Your task to perform on an android device: Add "razer thresher" to the cart on bestbuy.com, then select checkout. Image 0: 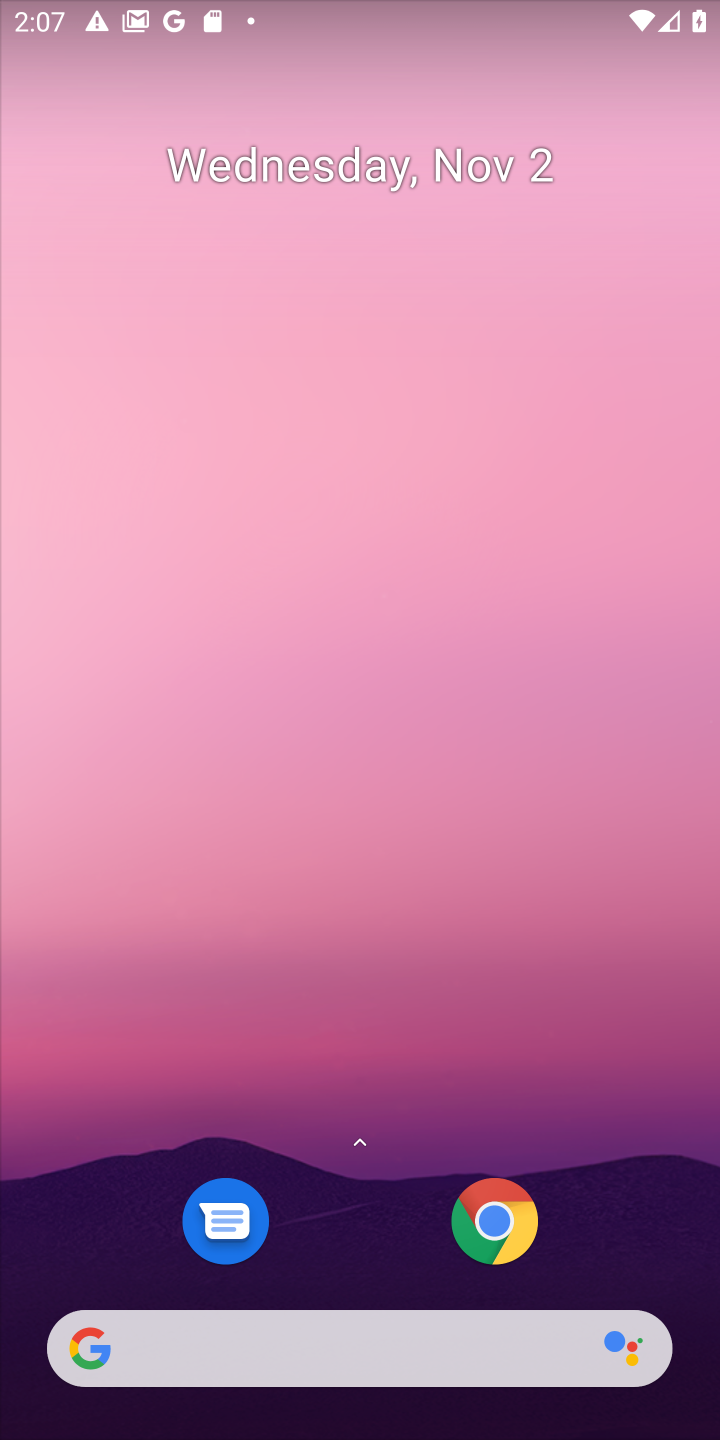
Step 0: click (452, 1335)
Your task to perform on an android device: Add "razer thresher" to the cart on bestbuy.com, then select checkout. Image 1: 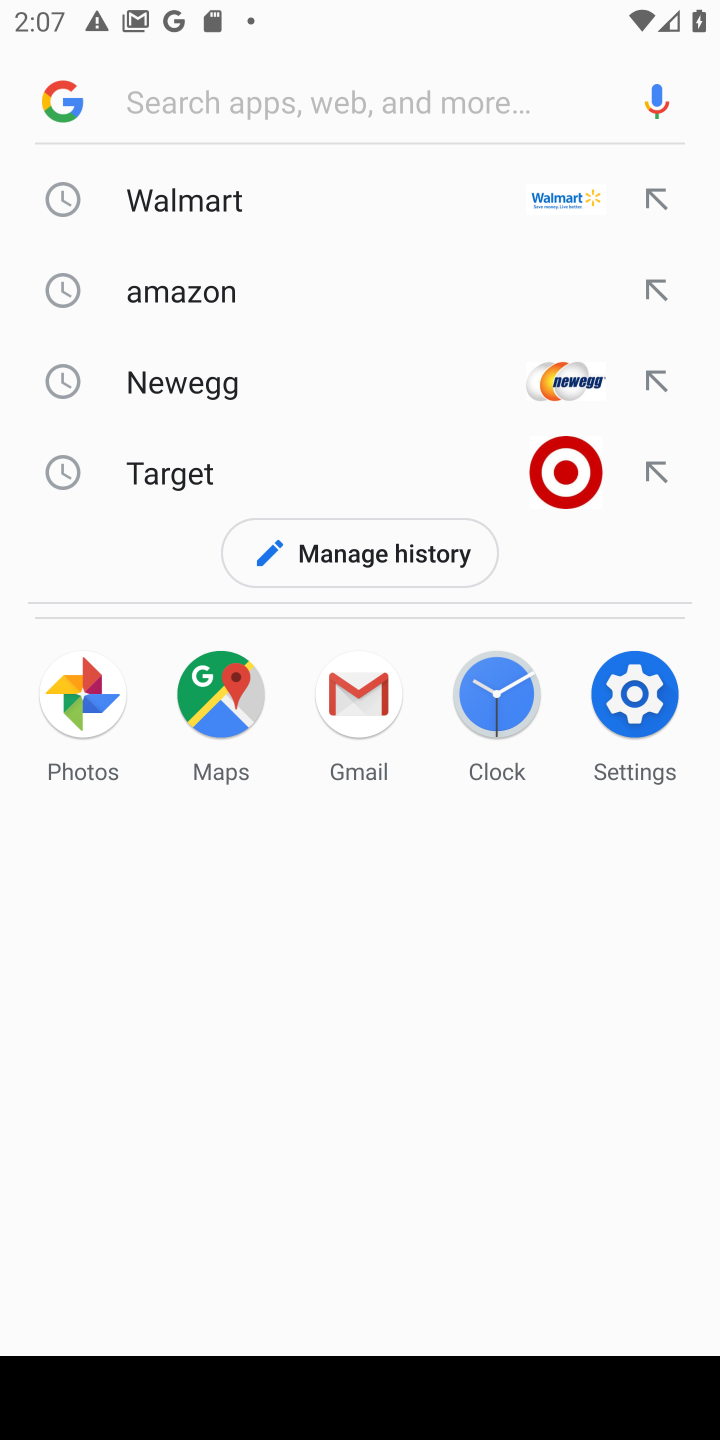
Step 1: type "razer thresher"
Your task to perform on an android device: Add "razer thresher" to the cart on bestbuy.com, then select checkout. Image 2: 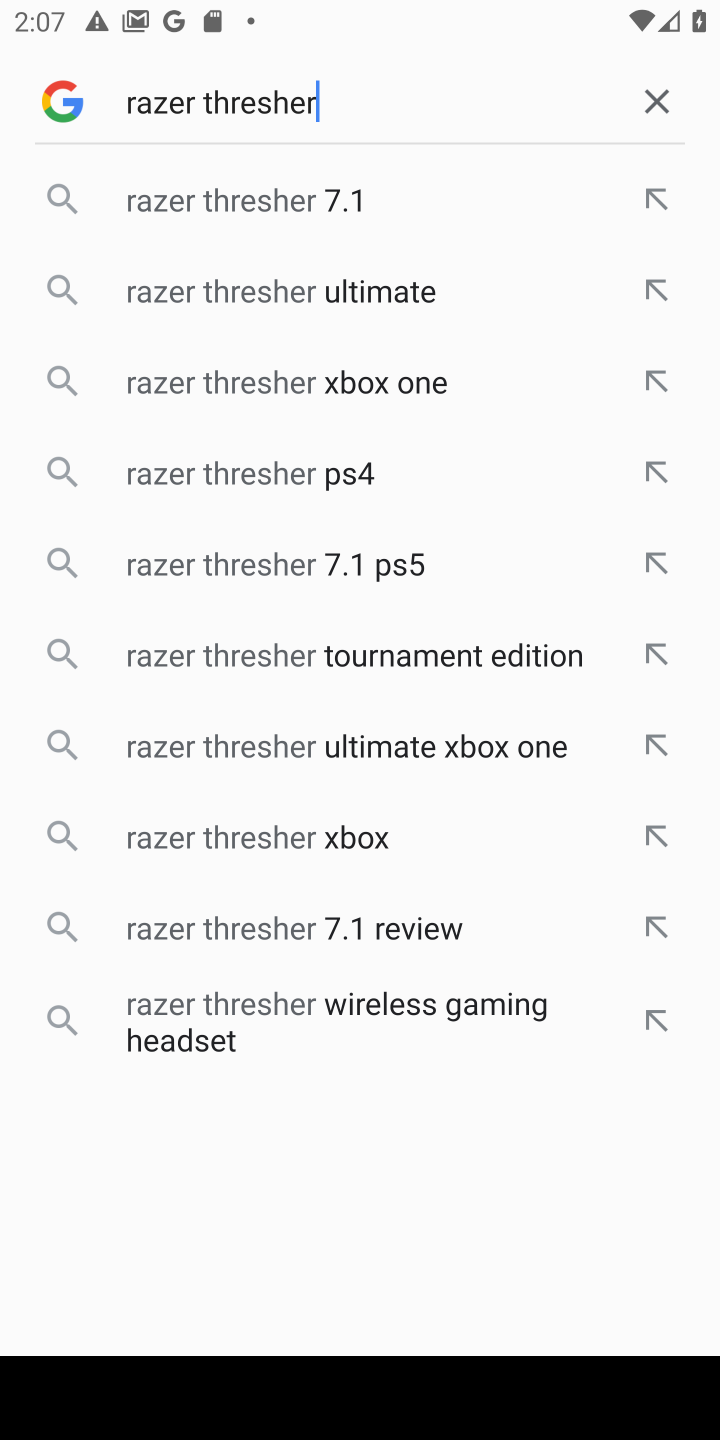
Step 2: click (172, 214)
Your task to perform on an android device: Add "razer thresher" to the cart on bestbuy.com, then select checkout. Image 3: 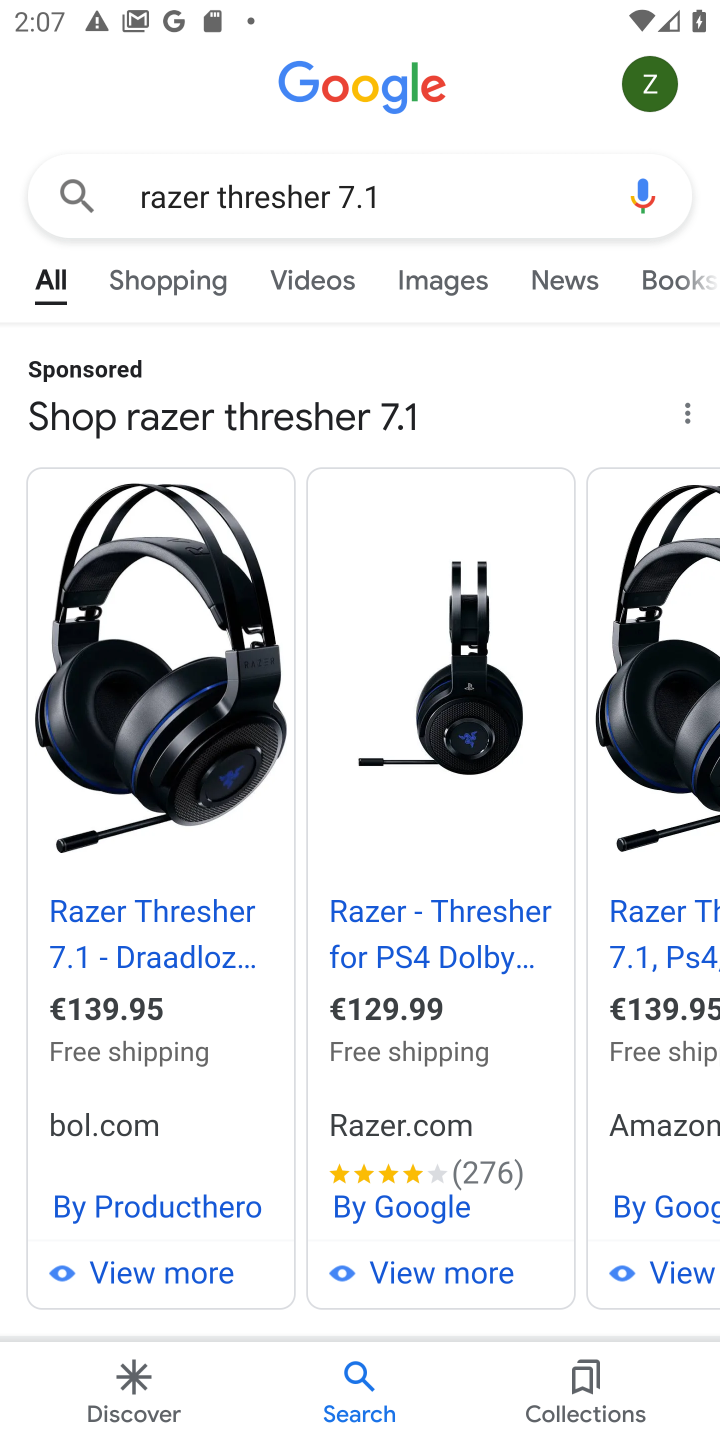
Step 3: drag from (617, 1093) to (333, 1094)
Your task to perform on an android device: Add "razer thresher" to the cart on bestbuy.com, then select checkout. Image 4: 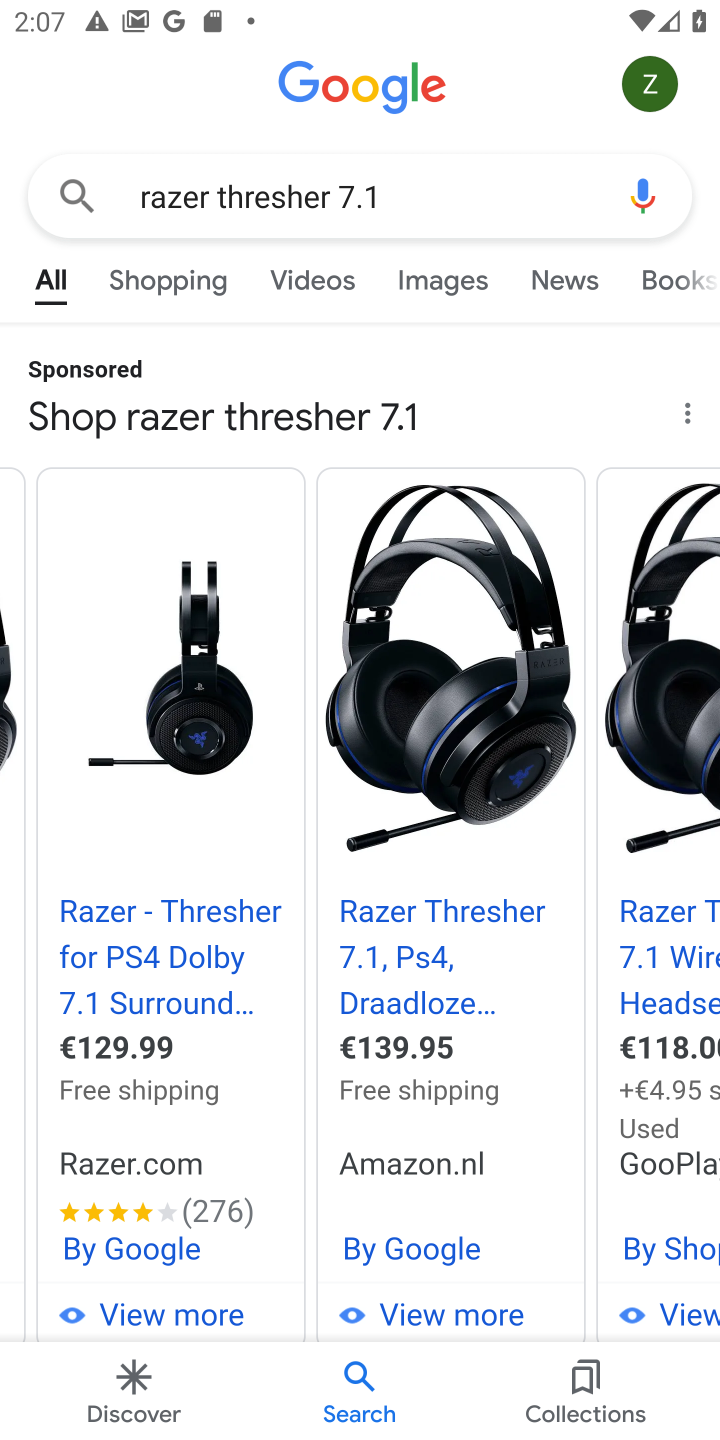
Step 4: drag from (561, 1176) to (357, 1158)
Your task to perform on an android device: Add "razer thresher" to the cart on bestbuy.com, then select checkout. Image 5: 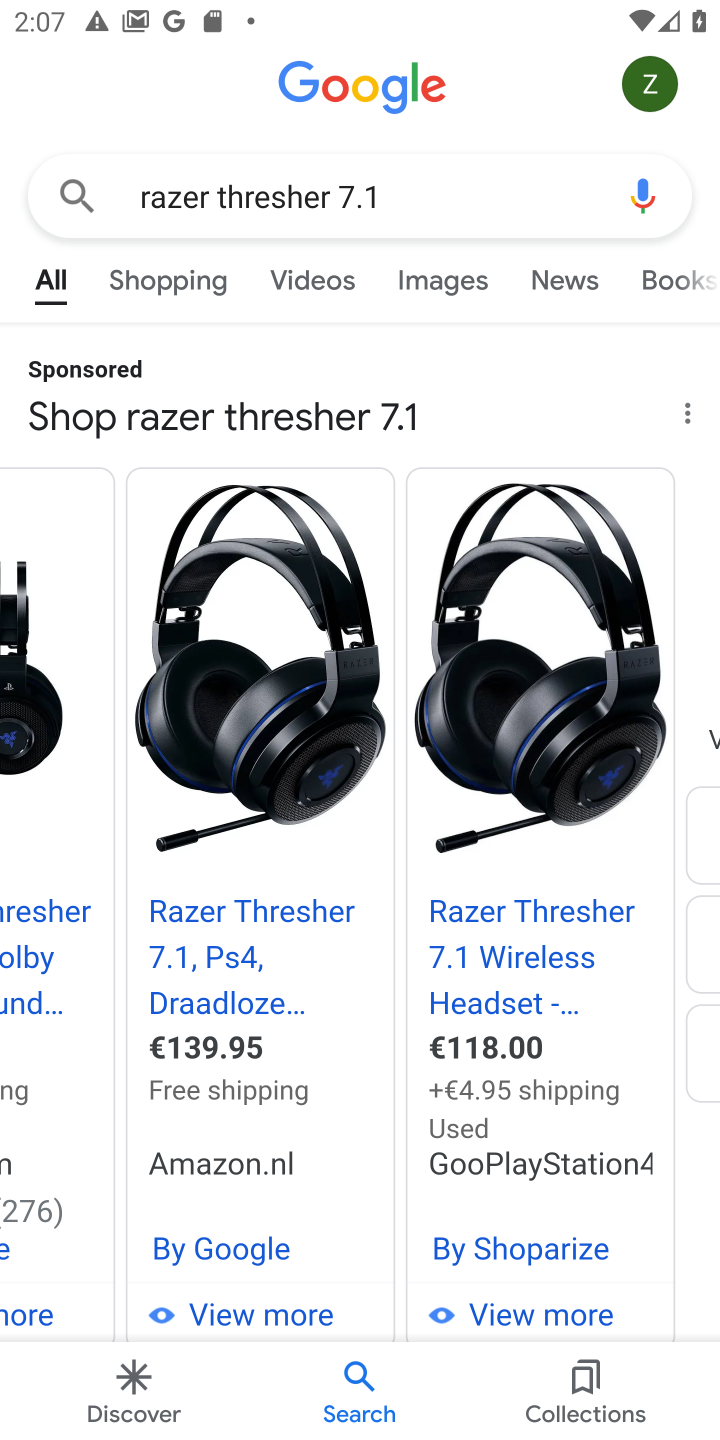
Step 5: click (455, 781)
Your task to perform on an android device: Add "razer thresher" to the cart on bestbuy.com, then select checkout. Image 6: 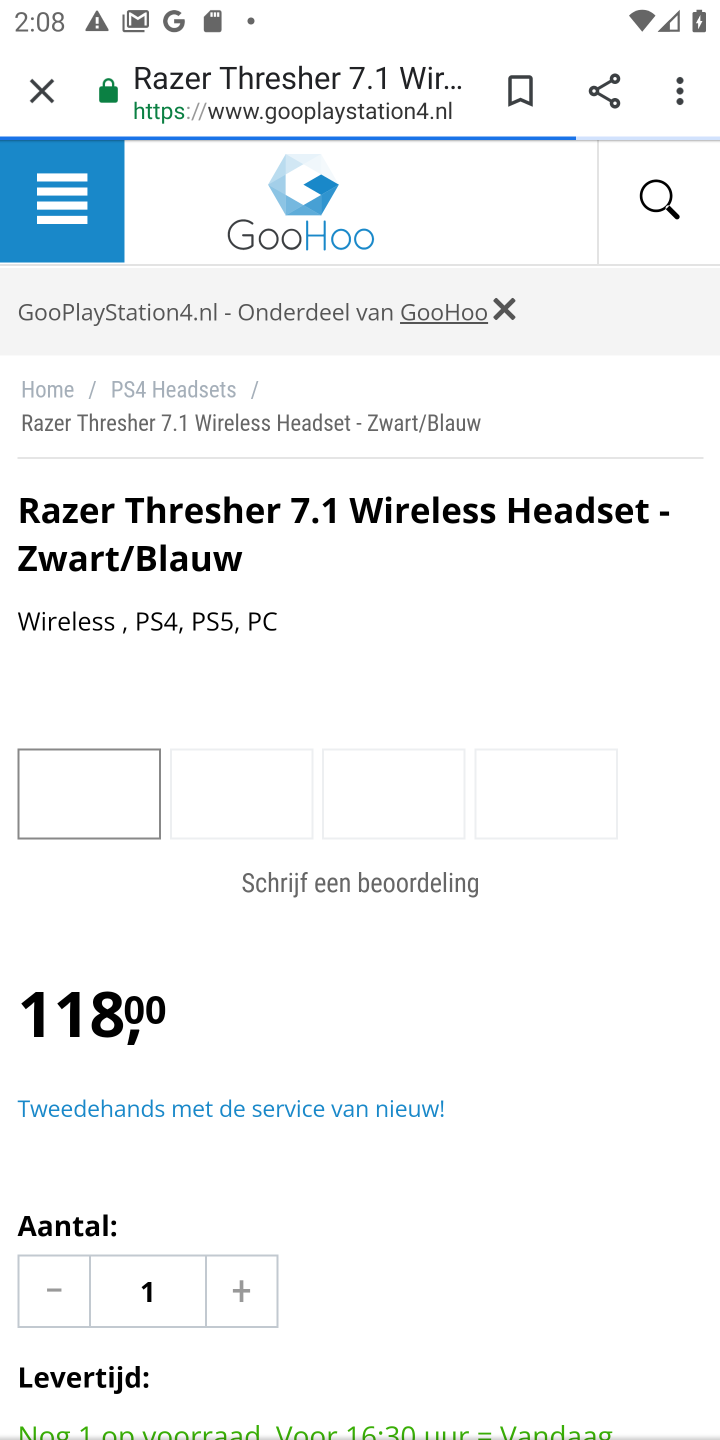
Step 6: task complete